Your task to perform on an android device: check the backup settings in the google photos Image 0: 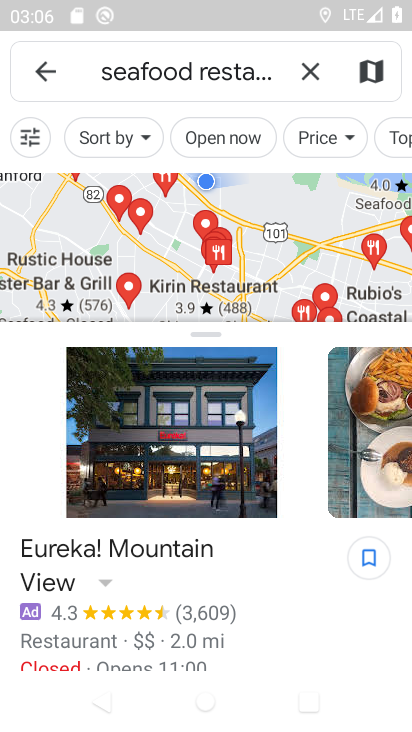
Step 0: press home button
Your task to perform on an android device: check the backup settings in the google photos Image 1: 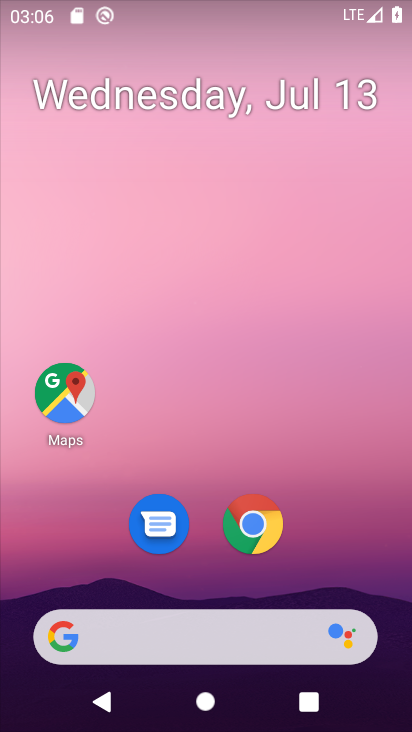
Step 1: drag from (308, 555) to (338, 17)
Your task to perform on an android device: check the backup settings in the google photos Image 2: 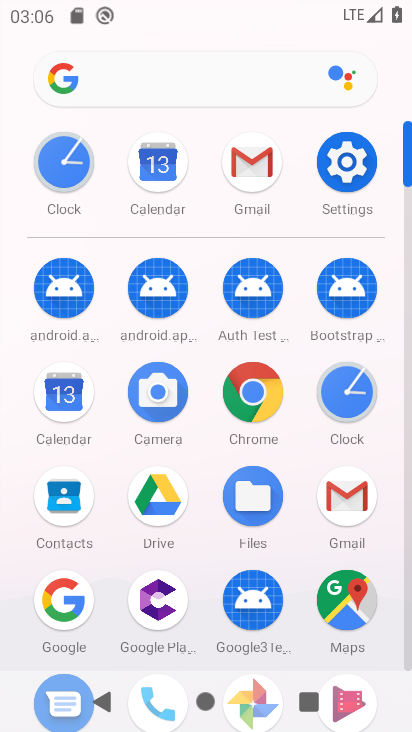
Step 2: drag from (199, 534) to (231, 124)
Your task to perform on an android device: check the backup settings in the google photos Image 3: 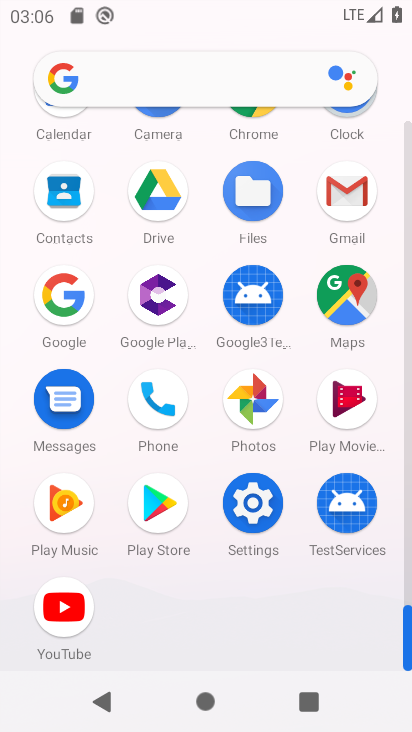
Step 3: click (266, 408)
Your task to perform on an android device: check the backup settings in the google photos Image 4: 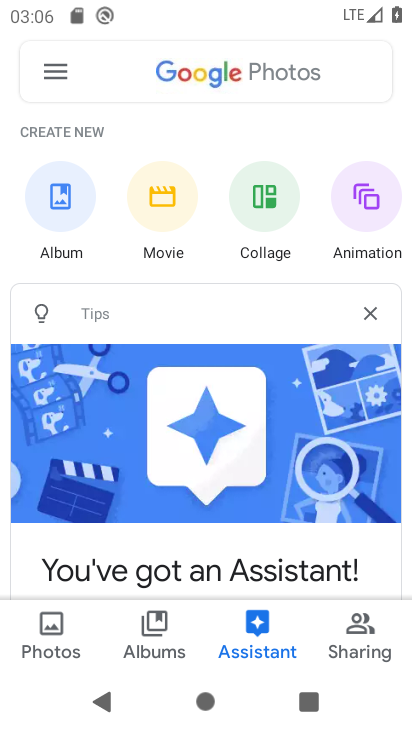
Step 4: click (56, 57)
Your task to perform on an android device: check the backup settings in the google photos Image 5: 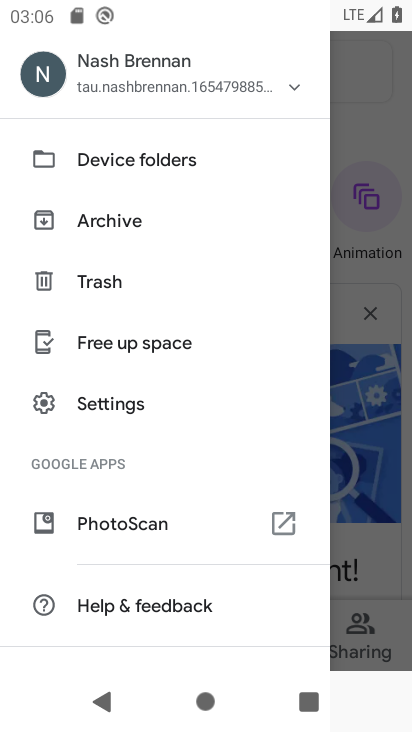
Step 5: click (114, 403)
Your task to perform on an android device: check the backup settings in the google photos Image 6: 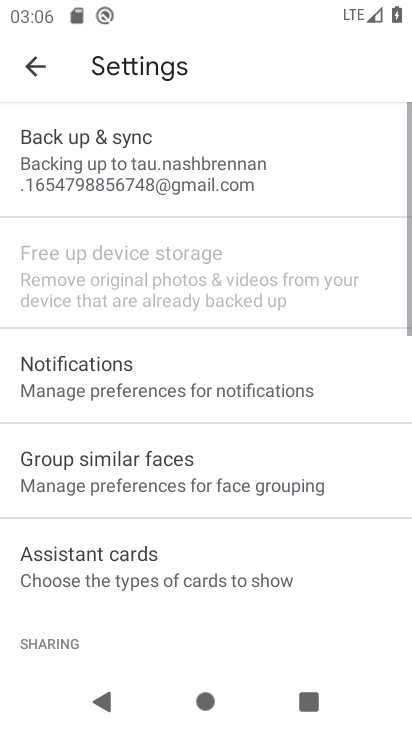
Step 6: click (142, 171)
Your task to perform on an android device: check the backup settings in the google photos Image 7: 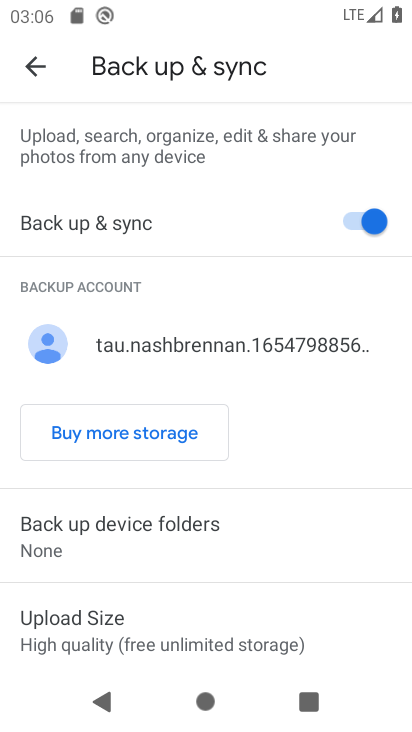
Step 7: task complete